Your task to perform on an android device: turn on improve location accuracy Image 0: 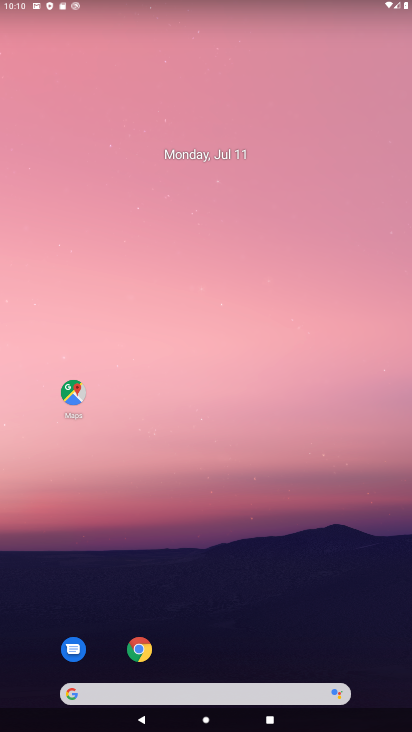
Step 0: drag from (270, 624) to (233, 69)
Your task to perform on an android device: turn on improve location accuracy Image 1: 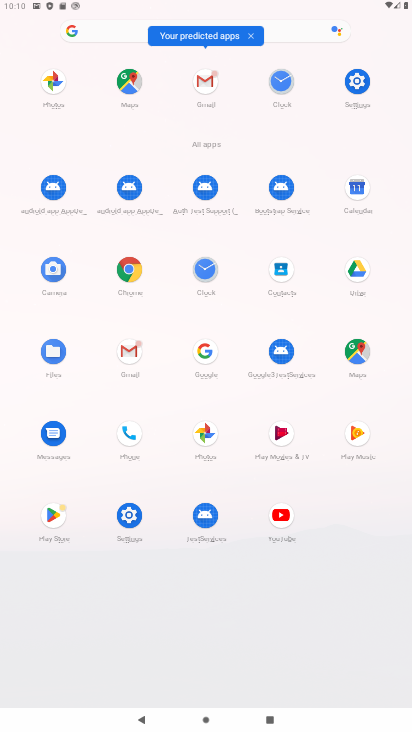
Step 1: click (359, 81)
Your task to perform on an android device: turn on improve location accuracy Image 2: 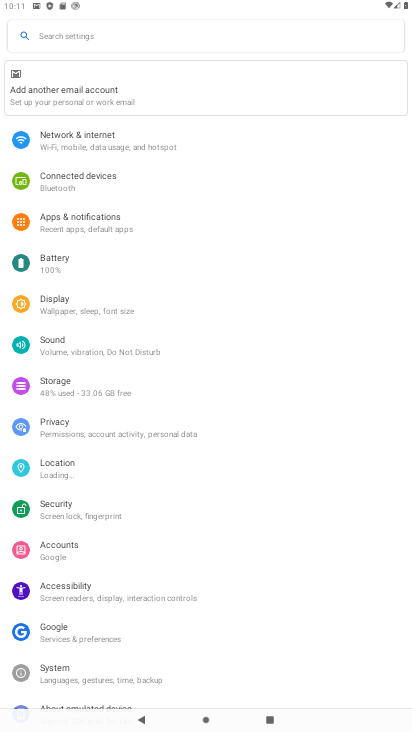
Step 2: click (65, 469)
Your task to perform on an android device: turn on improve location accuracy Image 3: 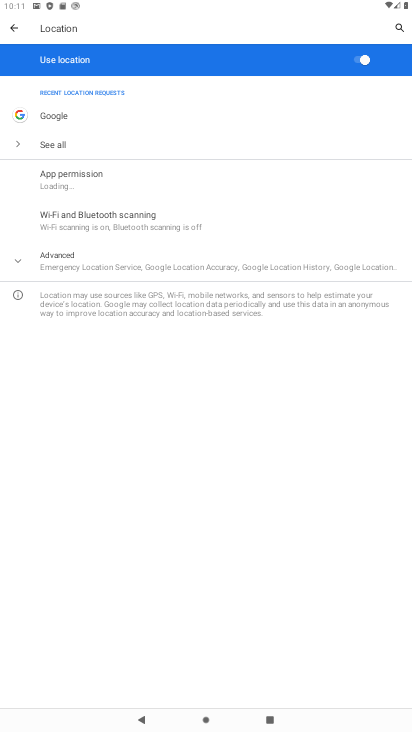
Step 3: click (140, 268)
Your task to perform on an android device: turn on improve location accuracy Image 4: 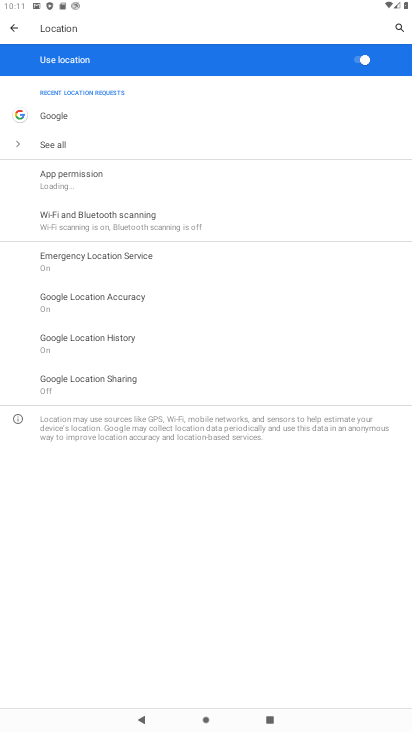
Step 4: click (117, 300)
Your task to perform on an android device: turn on improve location accuracy Image 5: 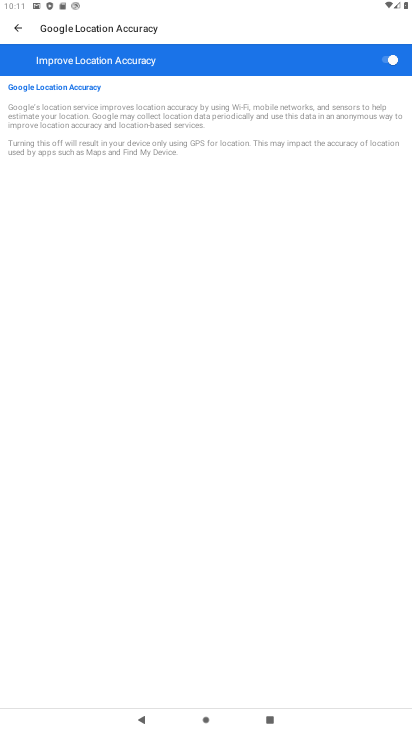
Step 5: task complete